Your task to perform on an android device: open device folders in google photos Image 0: 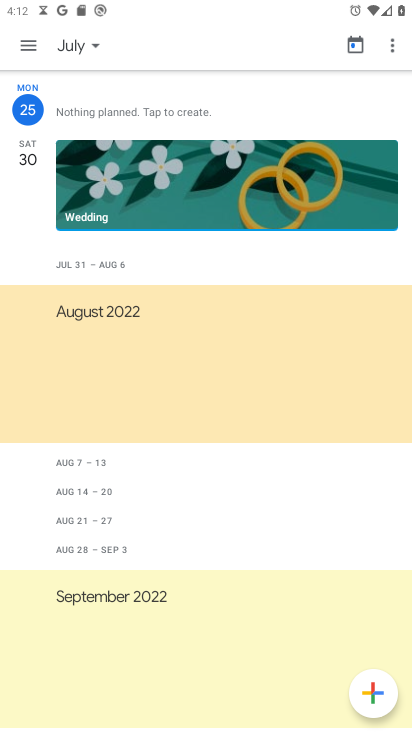
Step 0: press home button
Your task to perform on an android device: open device folders in google photos Image 1: 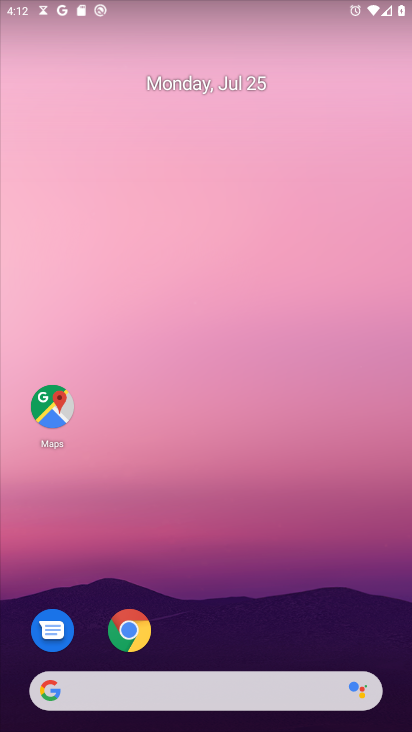
Step 1: drag from (157, 698) to (187, 316)
Your task to perform on an android device: open device folders in google photos Image 2: 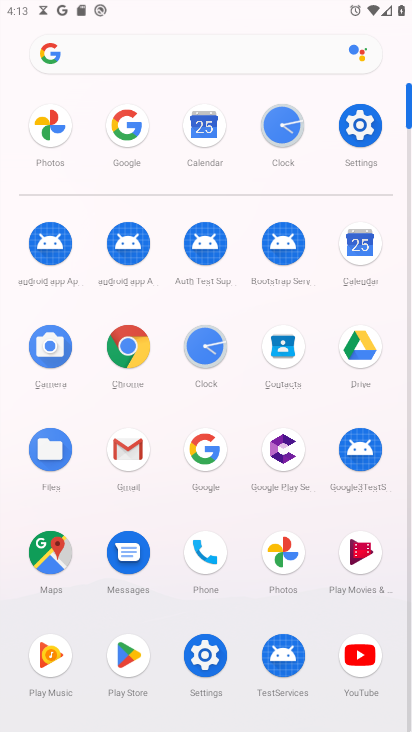
Step 2: click (280, 550)
Your task to perform on an android device: open device folders in google photos Image 3: 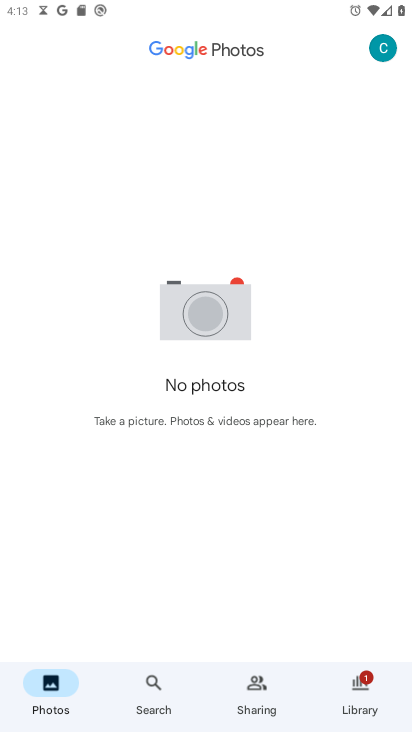
Step 3: click (379, 48)
Your task to perform on an android device: open device folders in google photos Image 4: 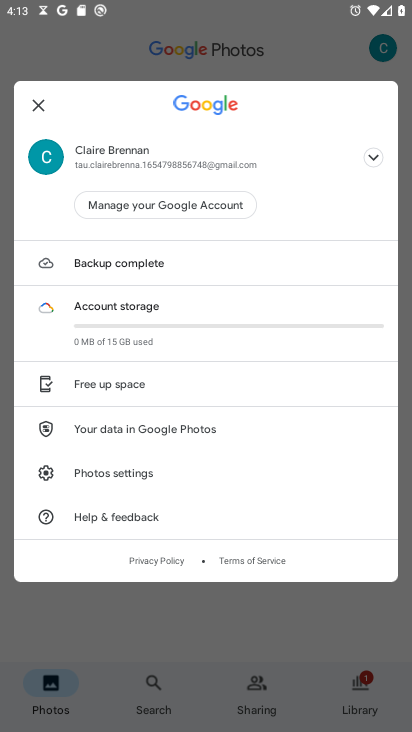
Step 4: click (113, 477)
Your task to perform on an android device: open device folders in google photos Image 5: 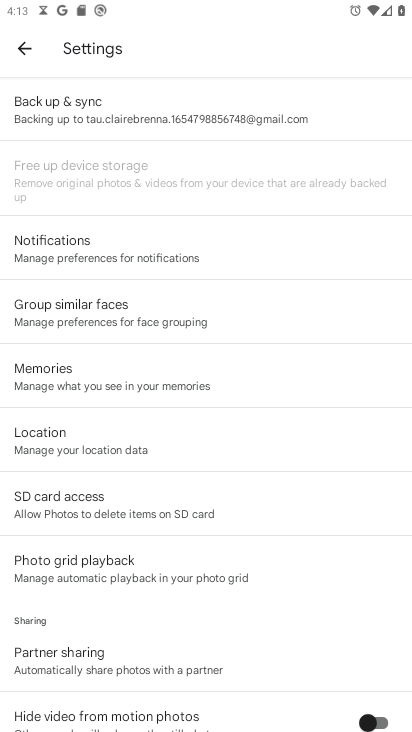
Step 5: drag from (133, 626) to (203, 355)
Your task to perform on an android device: open device folders in google photos Image 6: 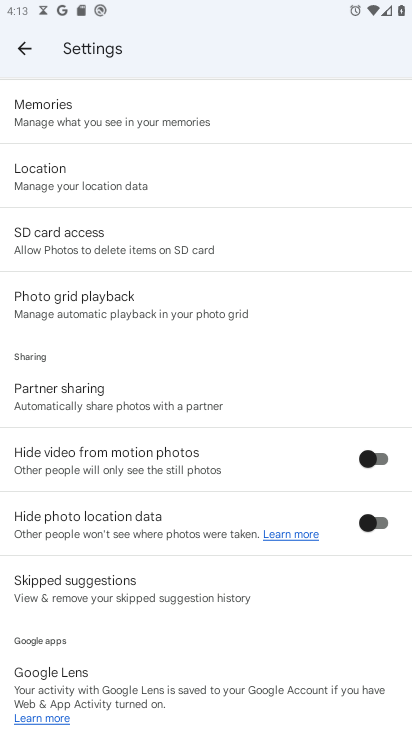
Step 6: drag from (186, 663) to (233, 359)
Your task to perform on an android device: open device folders in google photos Image 7: 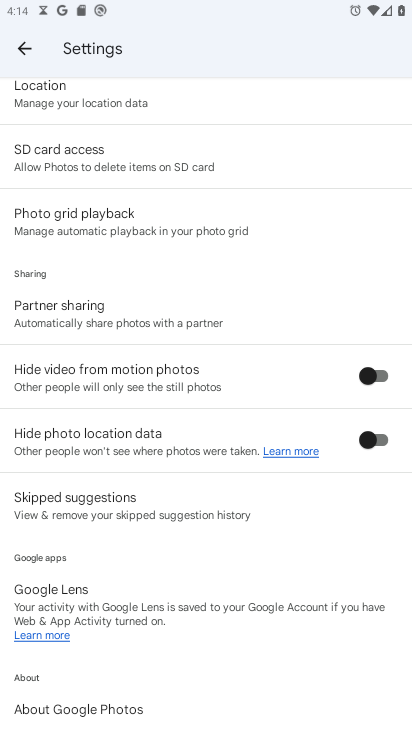
Step 7: press back button
Your task to perform on an android device: open device folders in google photos Image 8: 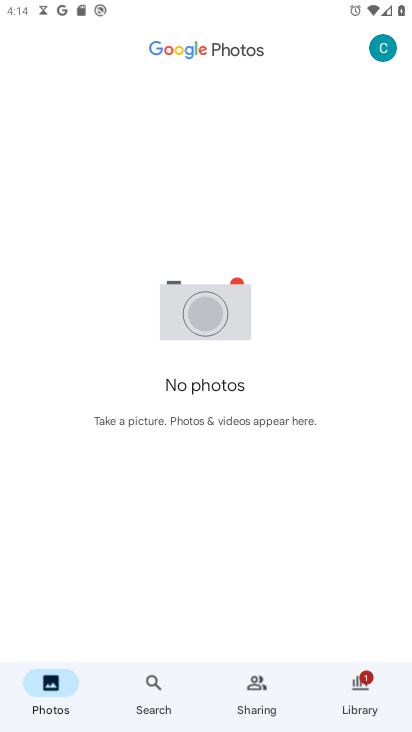
Step 8: click (150, 678)
Your task to perform on an android device: open device folders in google photos Image 9: 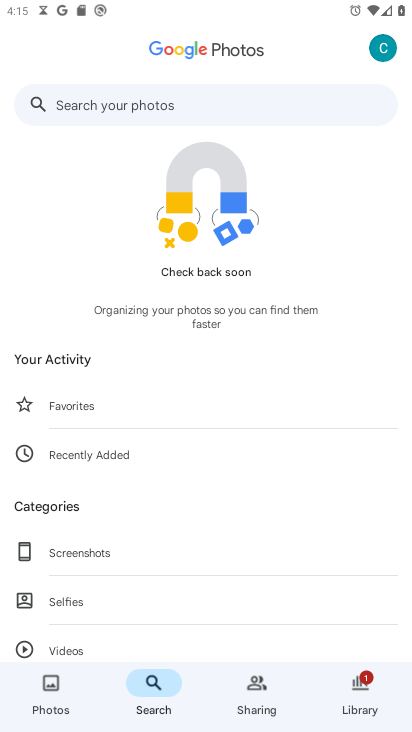
Step 9: task complete